Your task to perform on an android device: Check the weather Image 0: 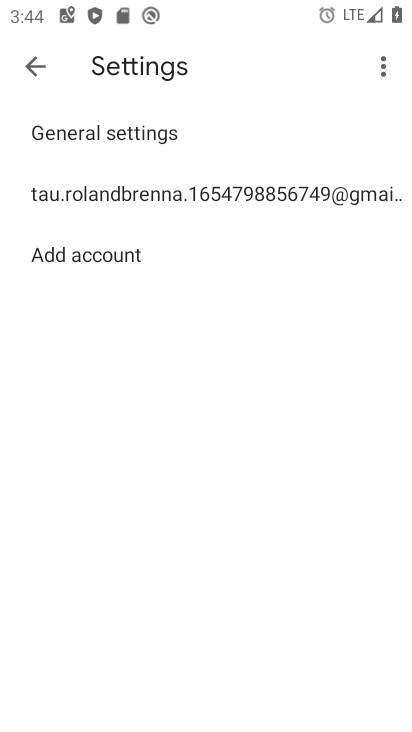
Step 0: press home button
Your task to perform on an android device: Check the weather Image 1: 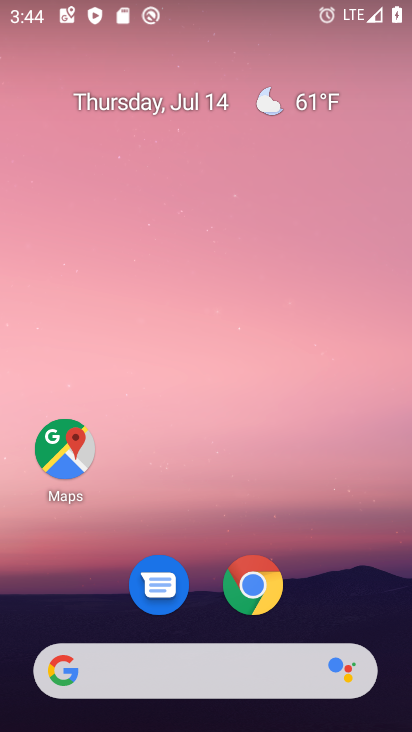
Step 1: click (269, 683)
Your task to perform on an android device: Check the weather Image 2: 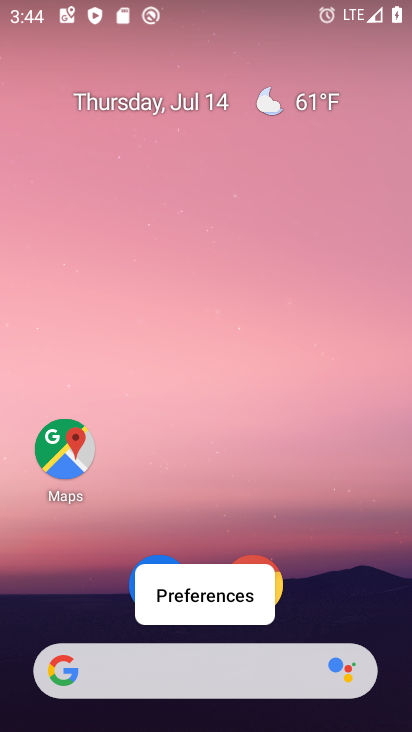
Step 2: click (162, 675)
Your task to perform on an android device: Check the weather Image 3: 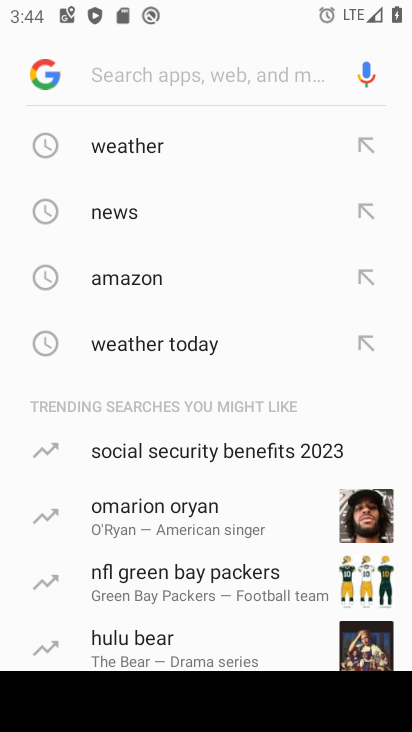
Step 3: click (129, 144)
Your task to perform on an android device: Check the weather Image 4: 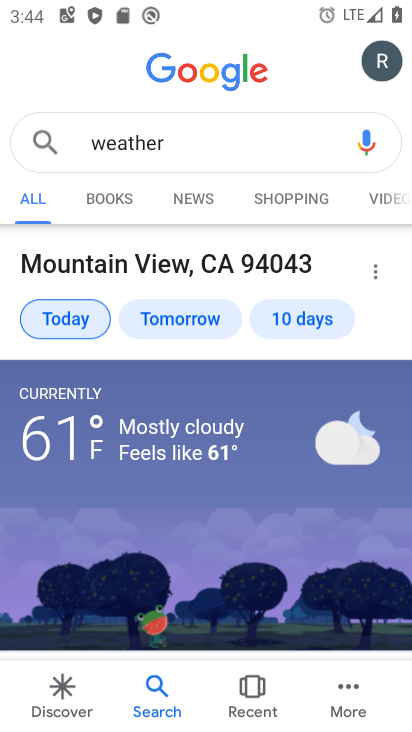
Step 4: click (64, 320)
Your task to perform on an android device: Check the weather Image 5: 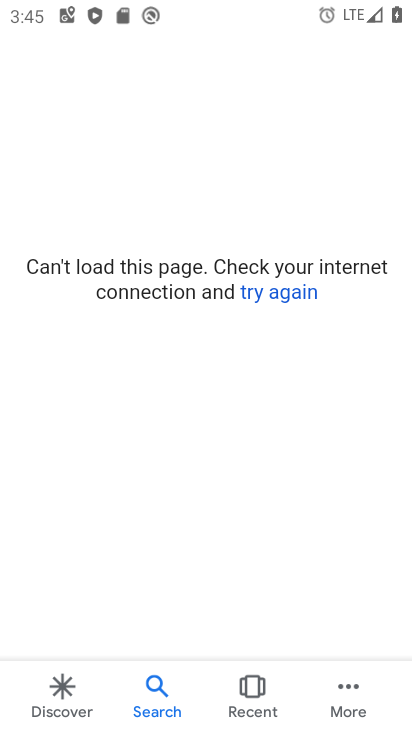
Step 5: click (299, 296)
Your task to perform on an android device: Check the weather Image 6: 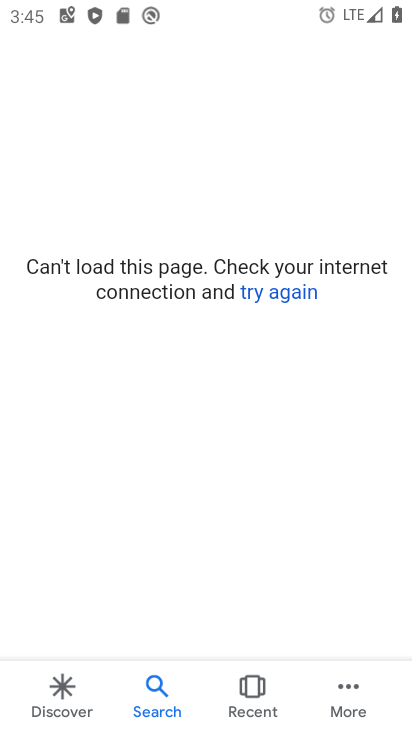
Step 6: task complete